Your task to perform on an android device: What's on my calendar tomorrow? Image 0: 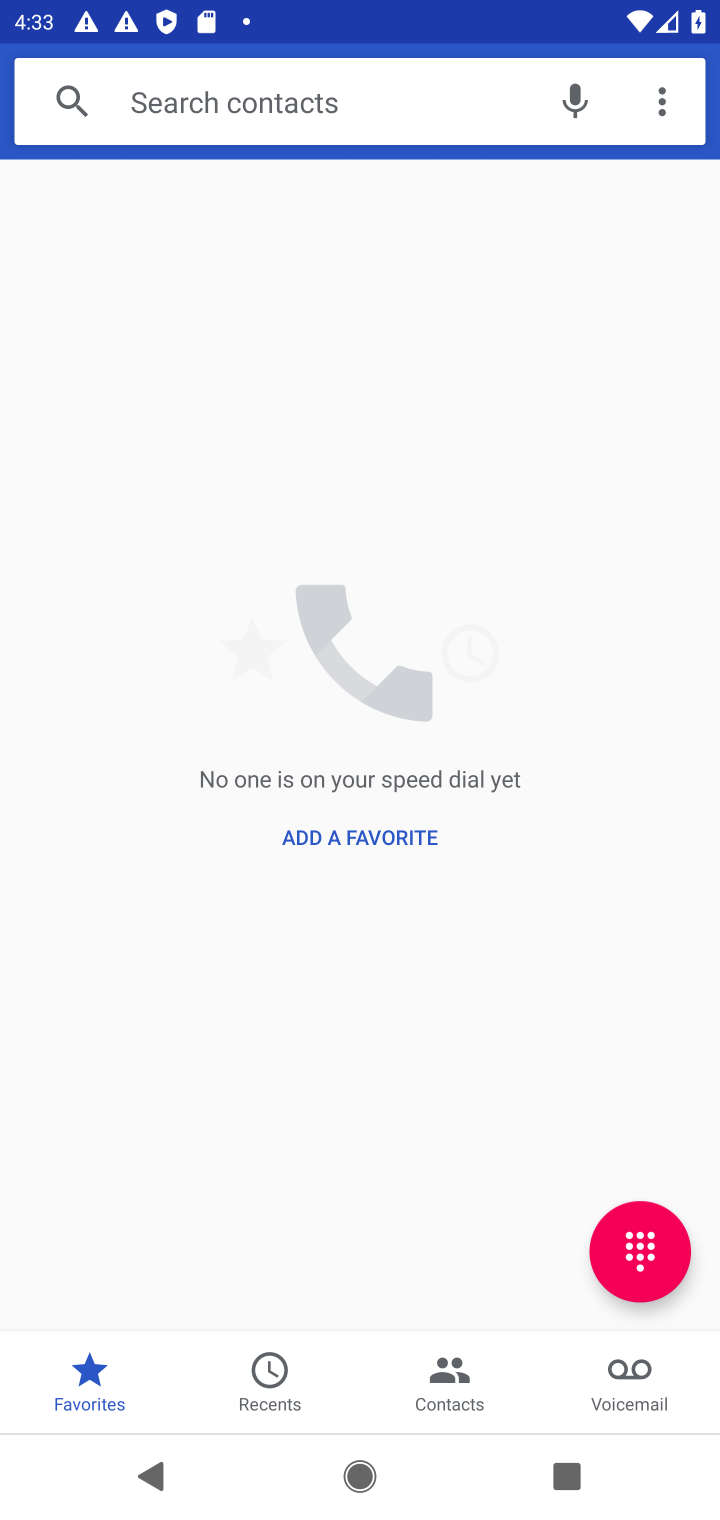
Step 0: press home button
Your task to perform on an android device: What's on my calendar tomorrow? Image 1: 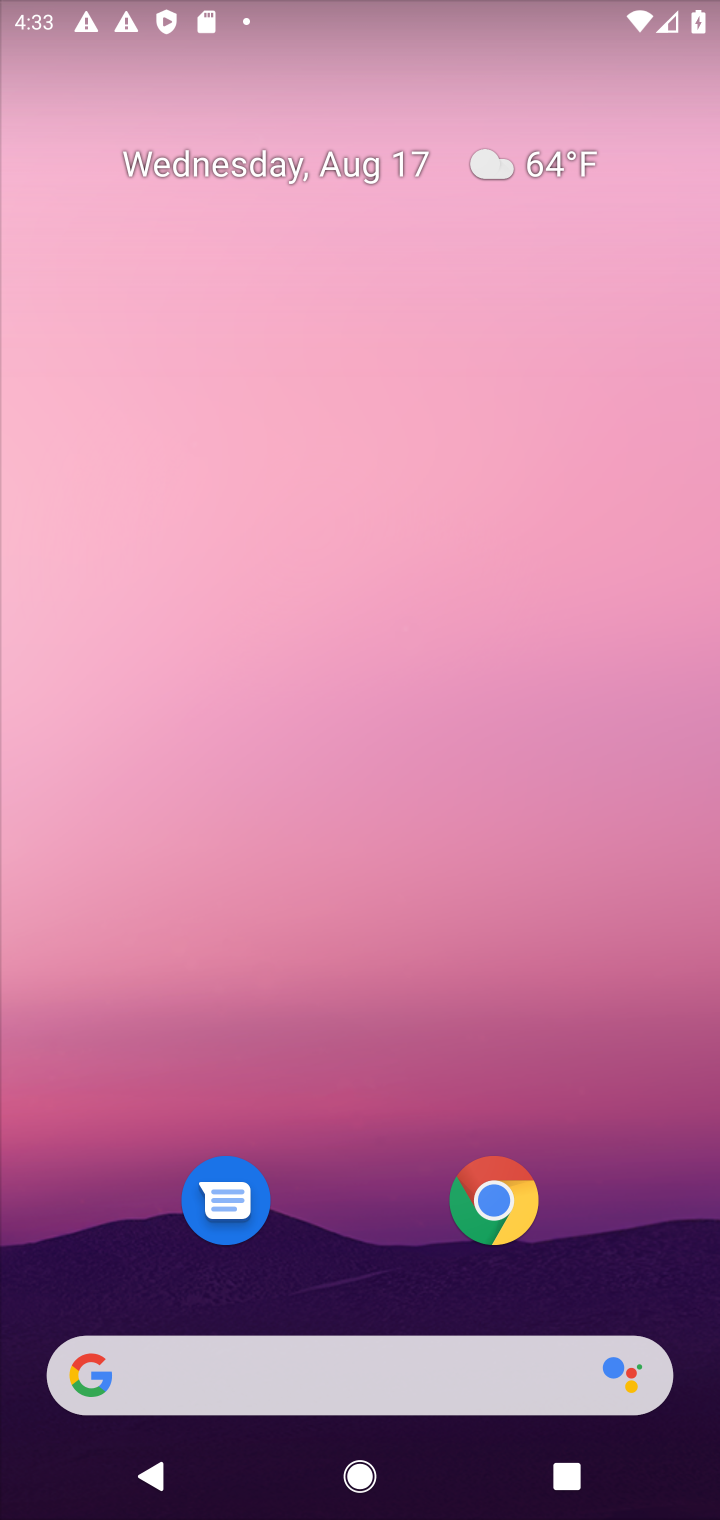
Step 1: drag from (356, 1231) to (363, 132)
Your task to perform on an android device: What's on my calendar tomorrow? Image 2: 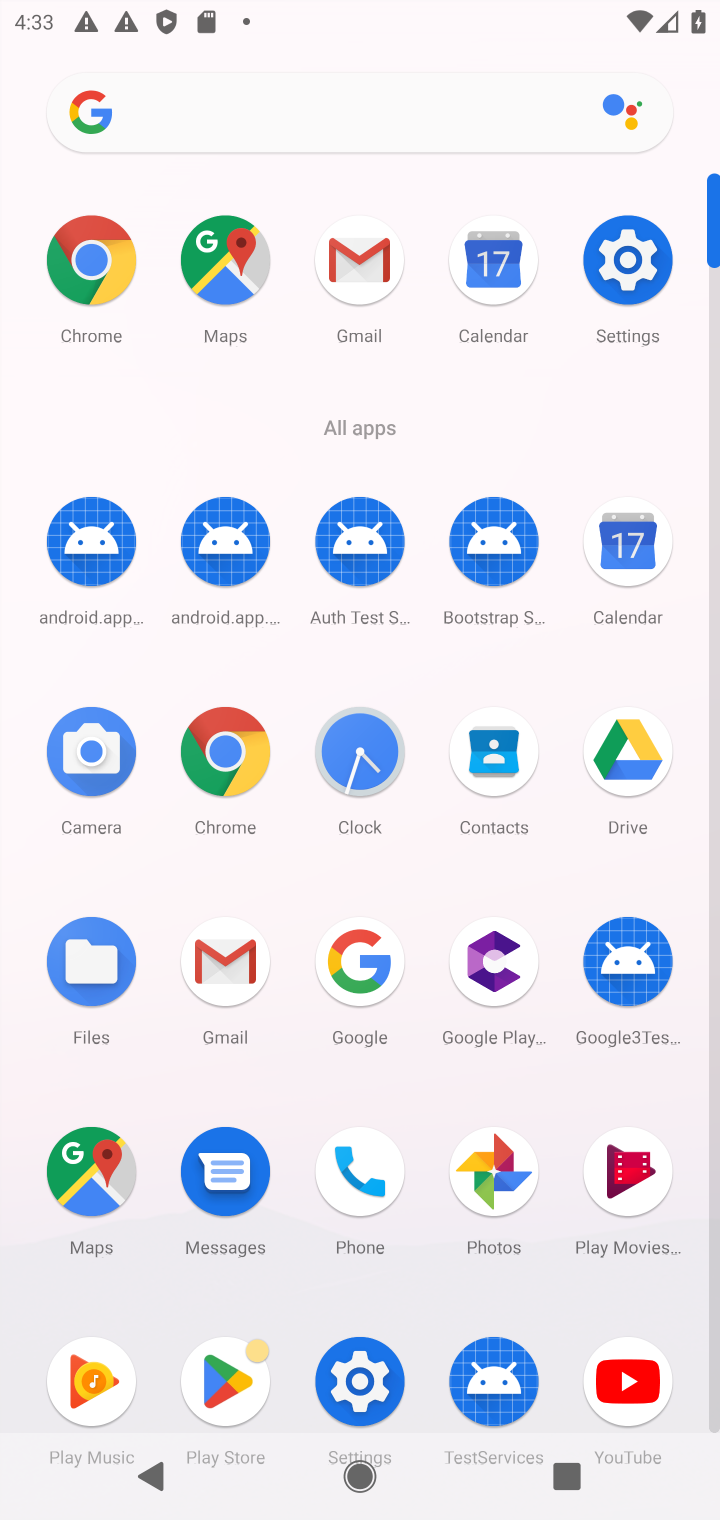
Step 2: click (627, 556)
Your task to perform on an android device: What's on my calendar tomorrow? Image 3: 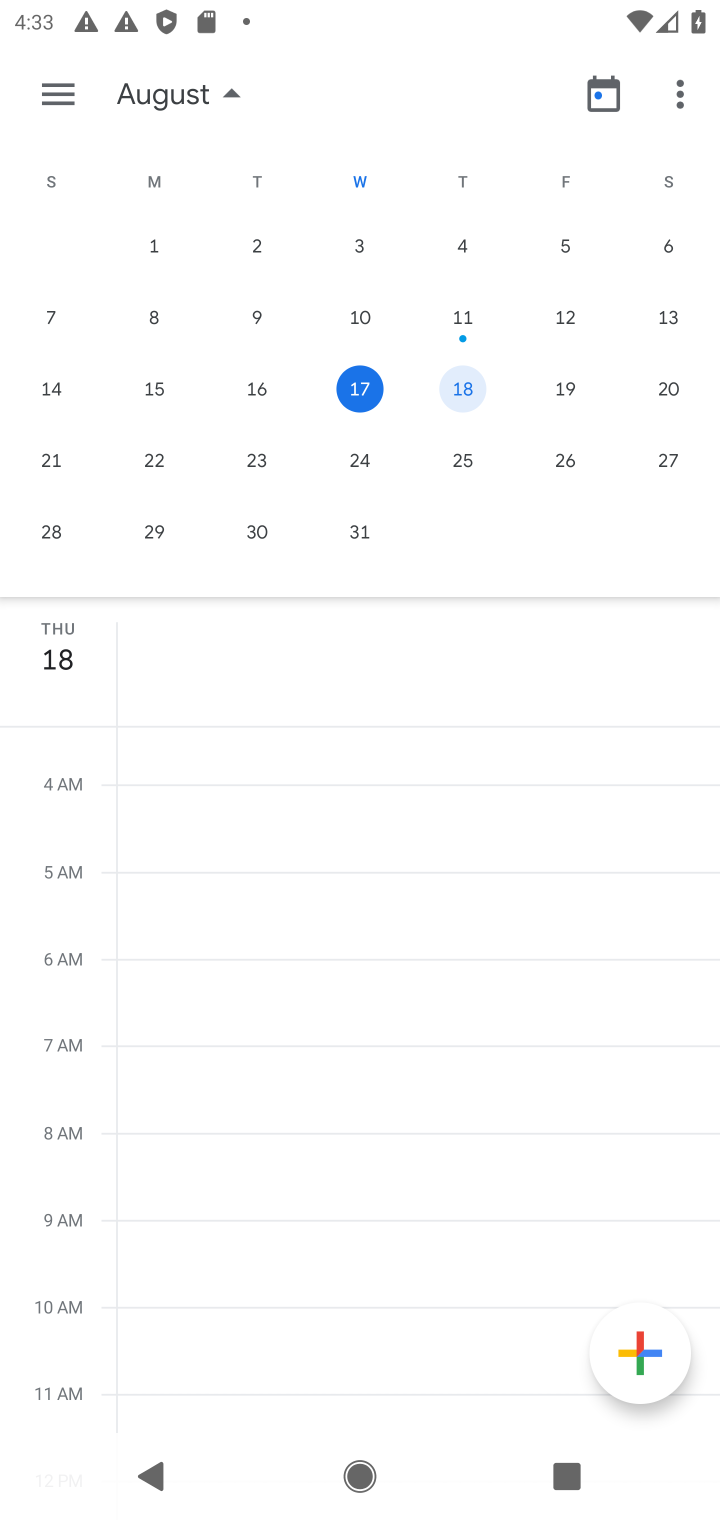
Step 3: click (463, 383)
Your task to perform on an android device: What's on my calendar tomorrow? Image 4: 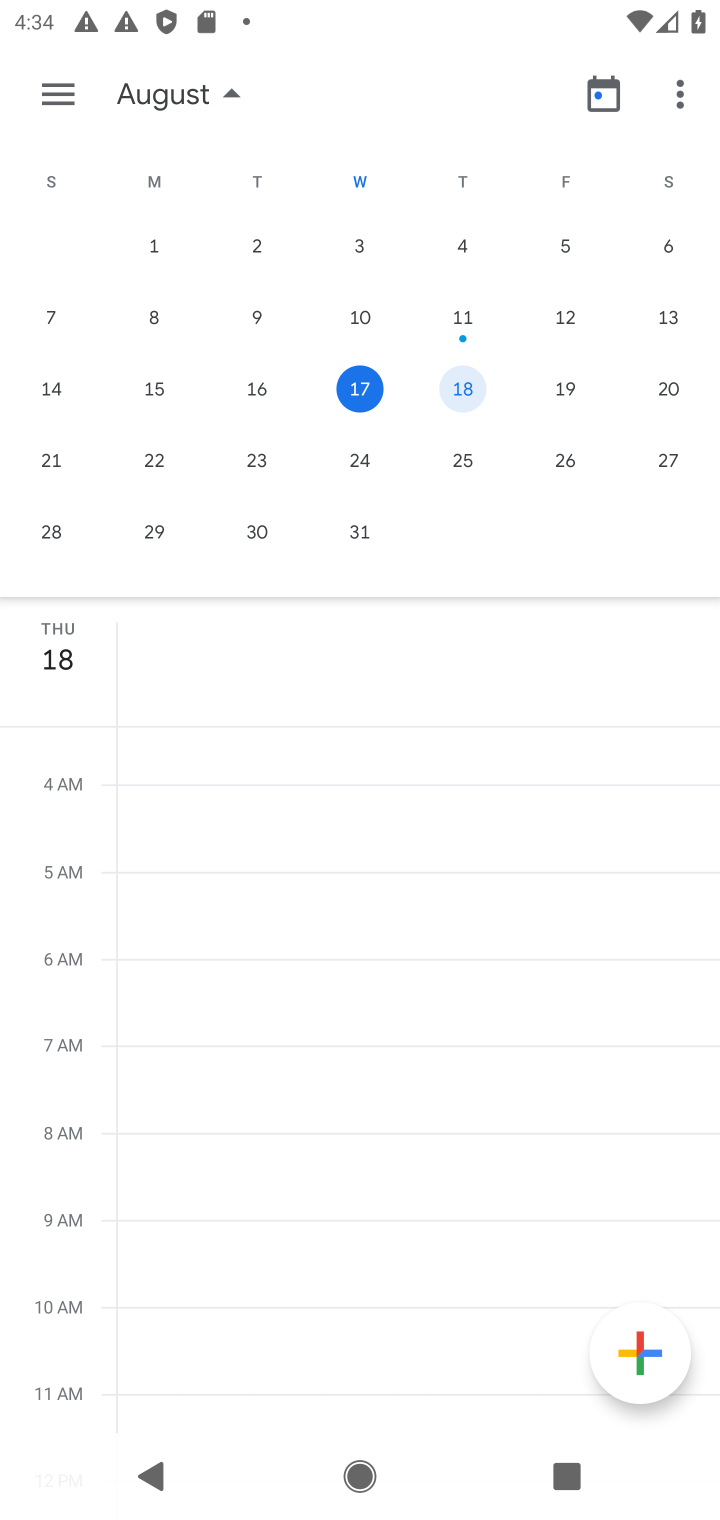
Step 4: click (451, 382)
Your task to perform on an android device: What's on my calendar tomorrow? Image 5: 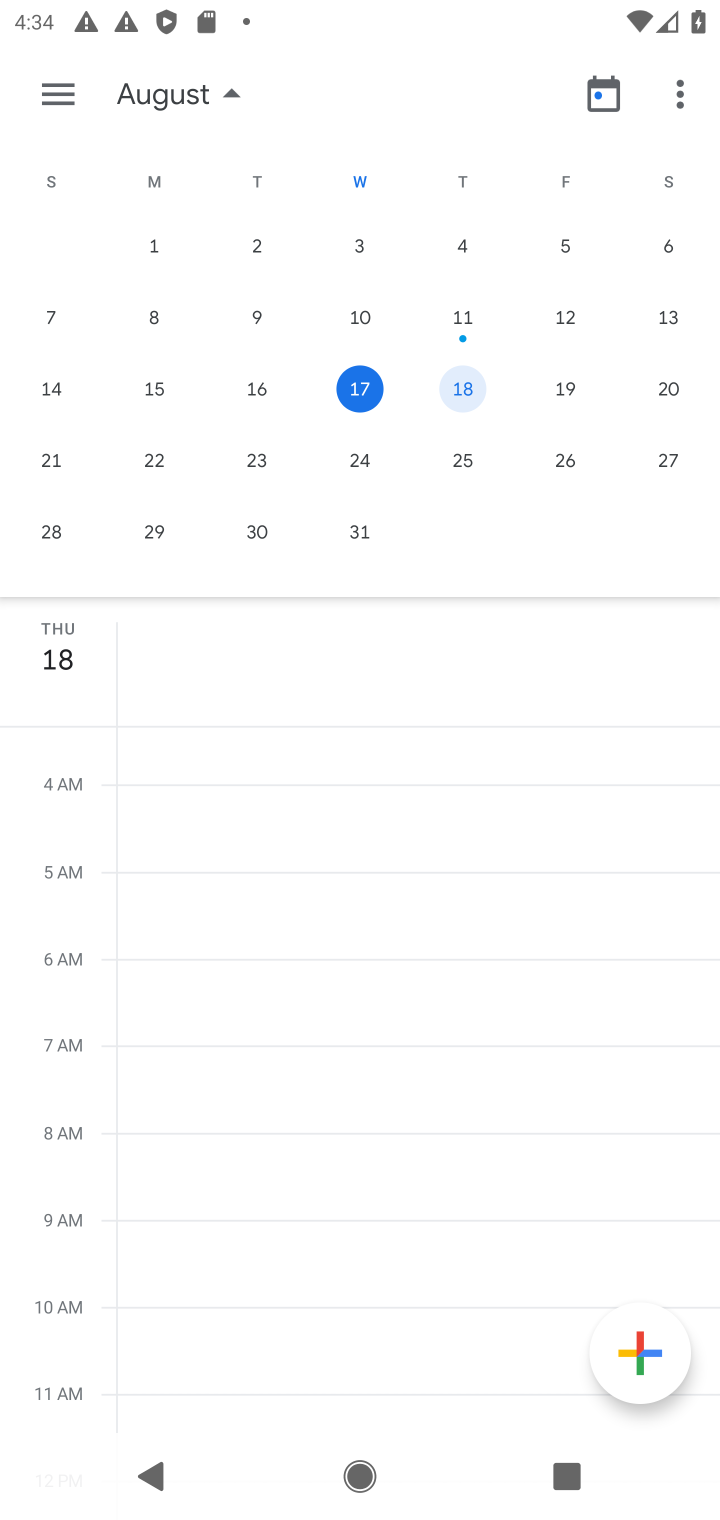
Step 5: task complete